Your task to perform on an android device: find snoozed emails in the gmail app Image 0: 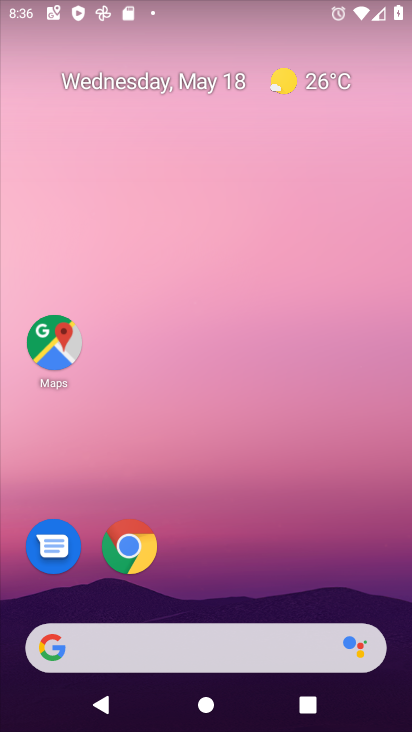
Step 0: drag from (400, 625) to (288, 33)
Your task to perform on an android device: find snoozed emails in the gmail app Image 1: 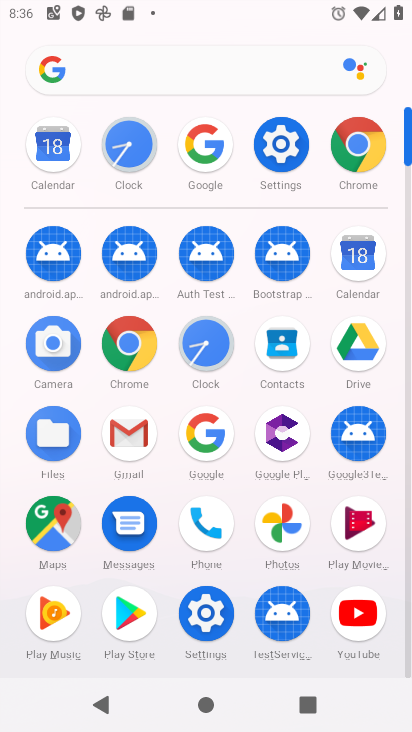
Step 1: click (132, 446)
Your task to perform on an android device: find snoozed emails in the gmail app Image 2: 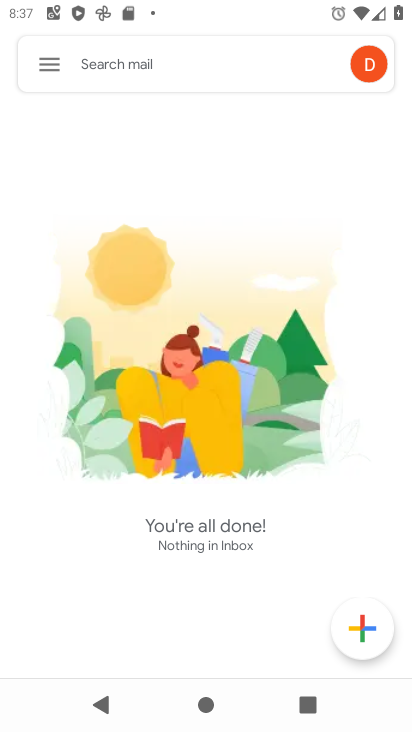
Step 2: click (50, 63)
Your task to perform on an android device: find snoozed emails in the gmail app Image 3: 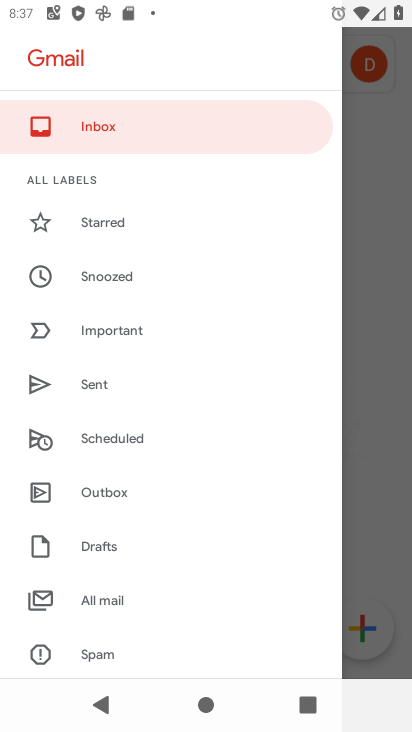
Step 3: click (139, 282)
Your task to perform on an android device: find snoozed emails in the gmail app Image 4: 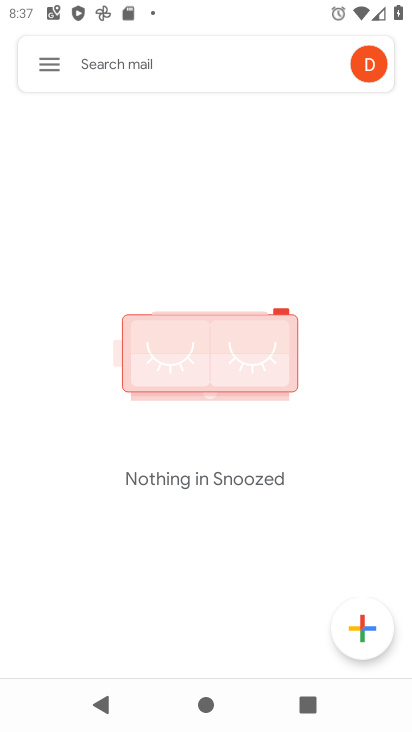
Step 4: task complete